Your task to perform on an android device: Where can I buy a nice beach chair? Image 0: 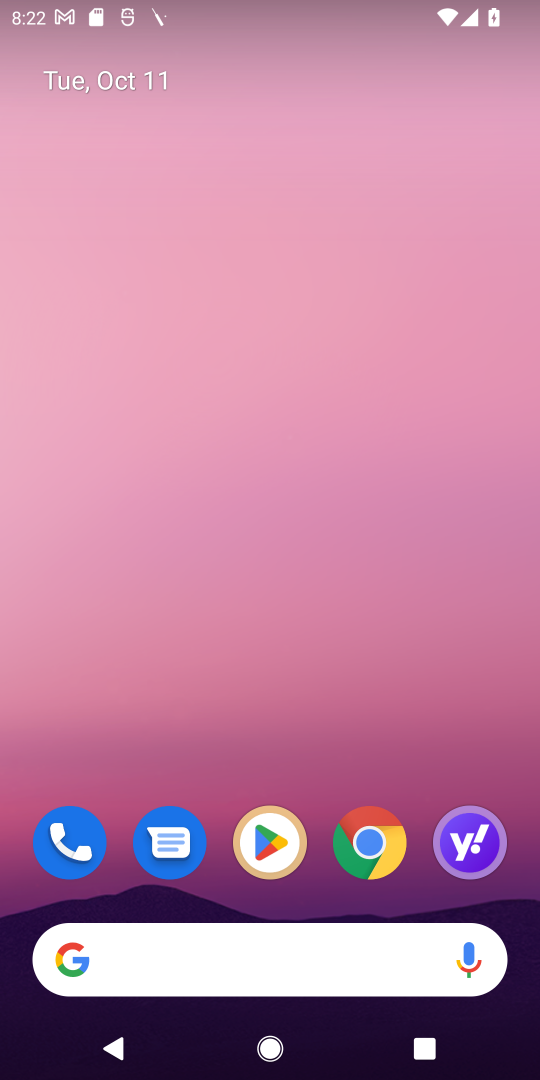
Step 0: click (368, 850)
Your task to perform on an android device: Where can I buy a nice beach chair? Image 1: 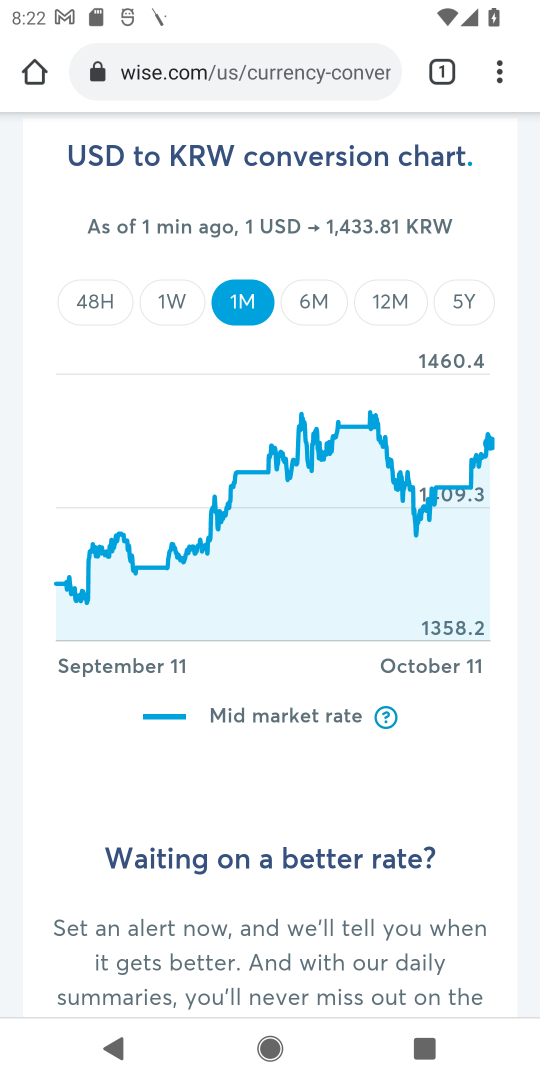
Step 1: click (291, 72)
Your task to perform on an android device: Where can I buy a nice beach chair? Image 2: 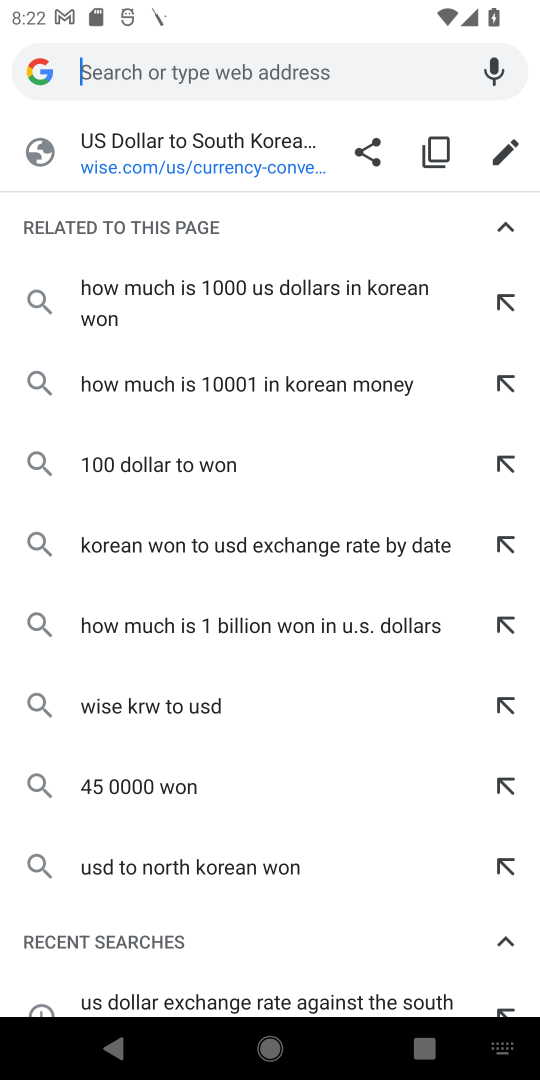
Step 2: type "nice beach chair"
Your task to perform on an android device: Where can I buy a nice beach chair? Image 3: 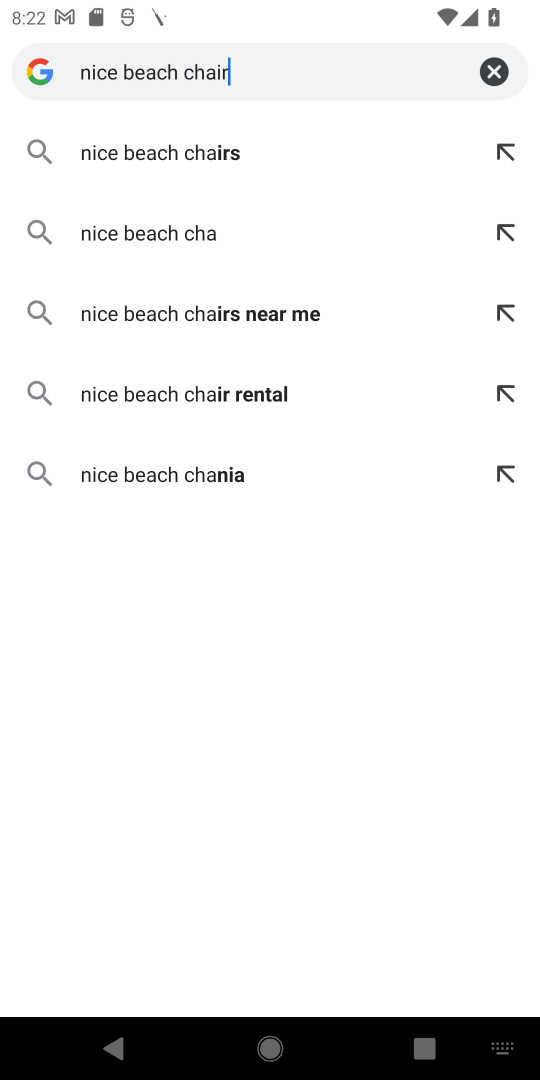
Step 3: type ""
Your task to perform on an android device: Where can I buy a nice beach chair? Image 4: 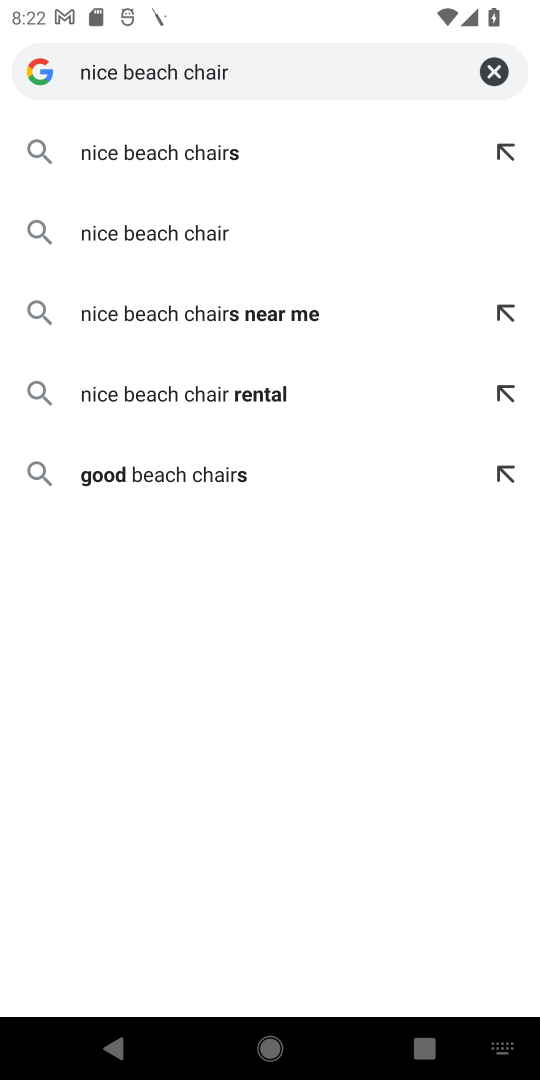
Step 4: click (122, 234)
Your task to perform on an android device: Where can I buy a nice beach chair? Image 5: 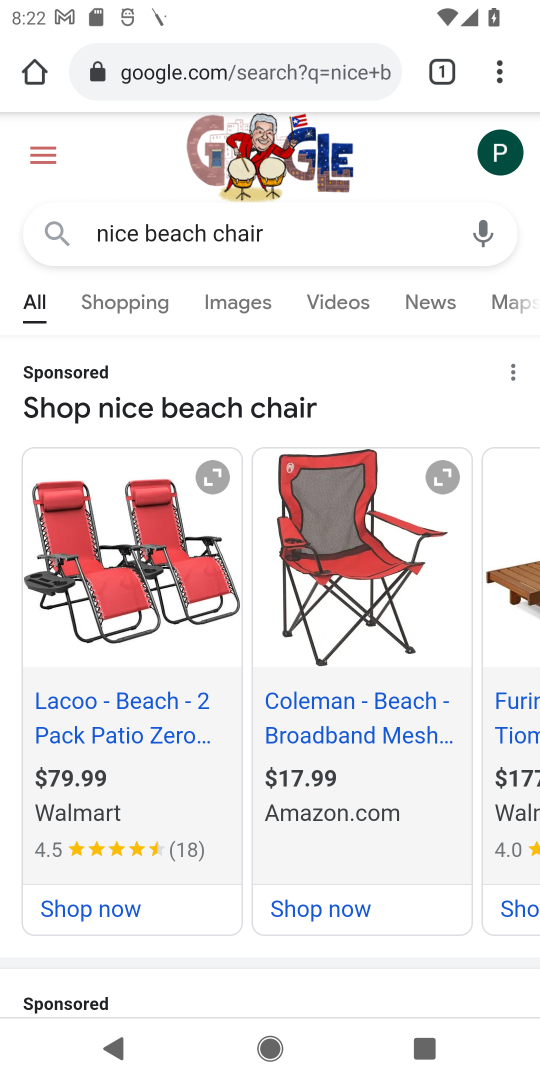
Step 5: drag from (166, 811) to (207, 102)
Your task to perform on an android device: Where can I buy a nice beach chair? Image 6: 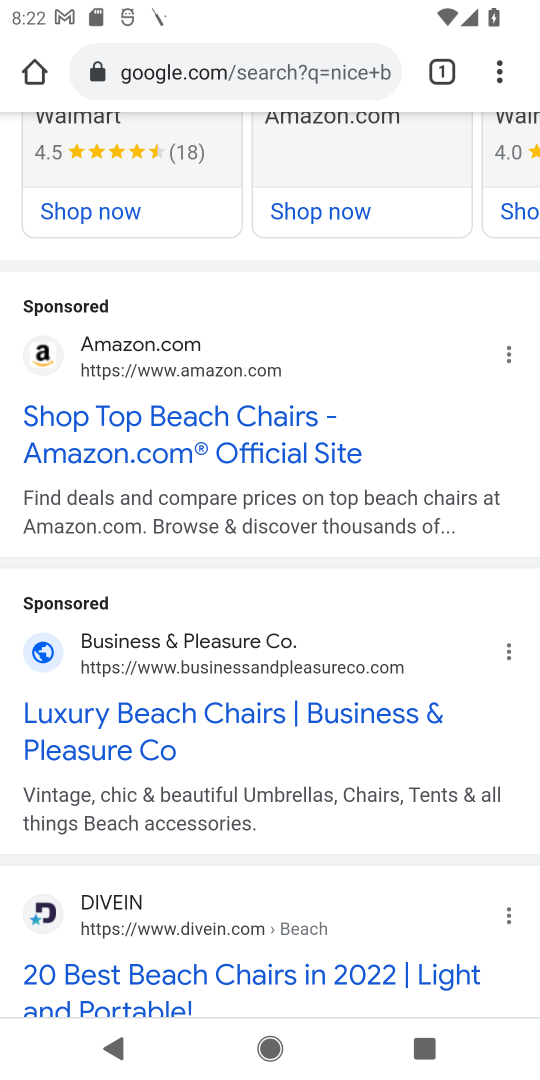
Step 6: drag from (157, 743) to (157, 563)
Your task to perform on an android device: Where can I buy a nice beach chair? Image 7: 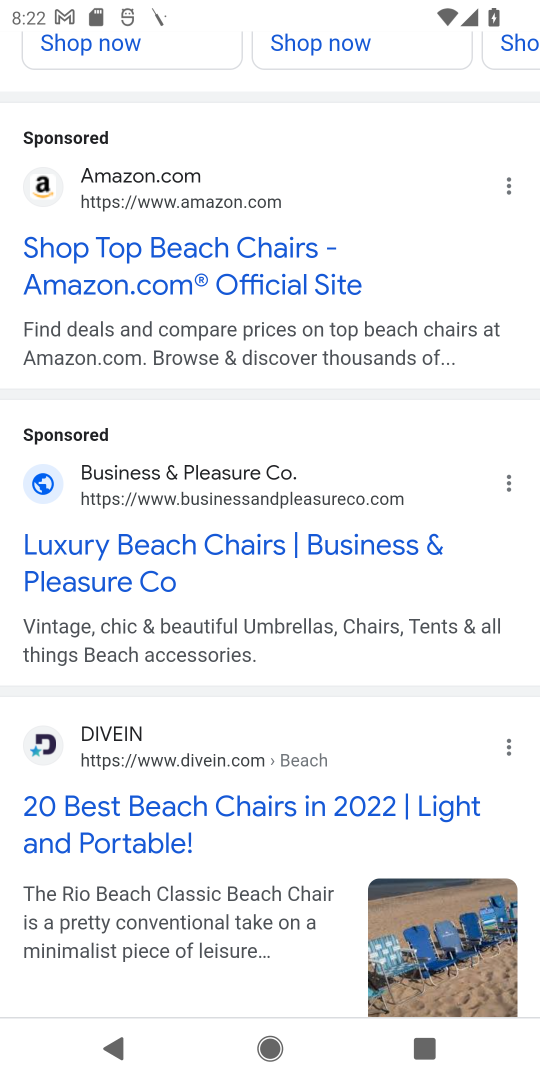
Step 7: click (151, 805)
Your task to perform on an android device: Where can I buy a nice beach chair? Image 8: 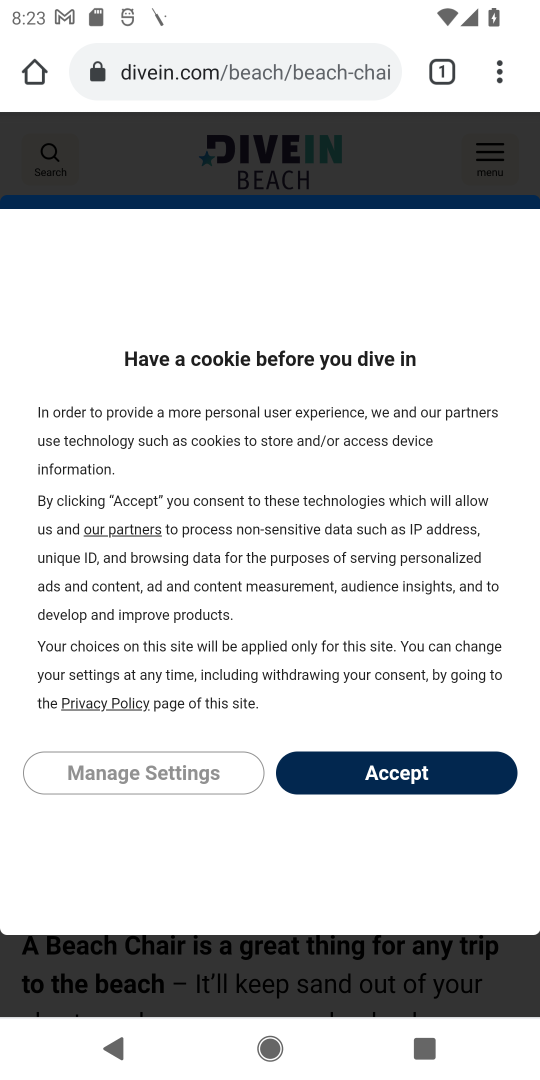
Step 8: click (350, 774)
Your task to perform on an android device: Where can I buy a nice beach chair? Image 9: 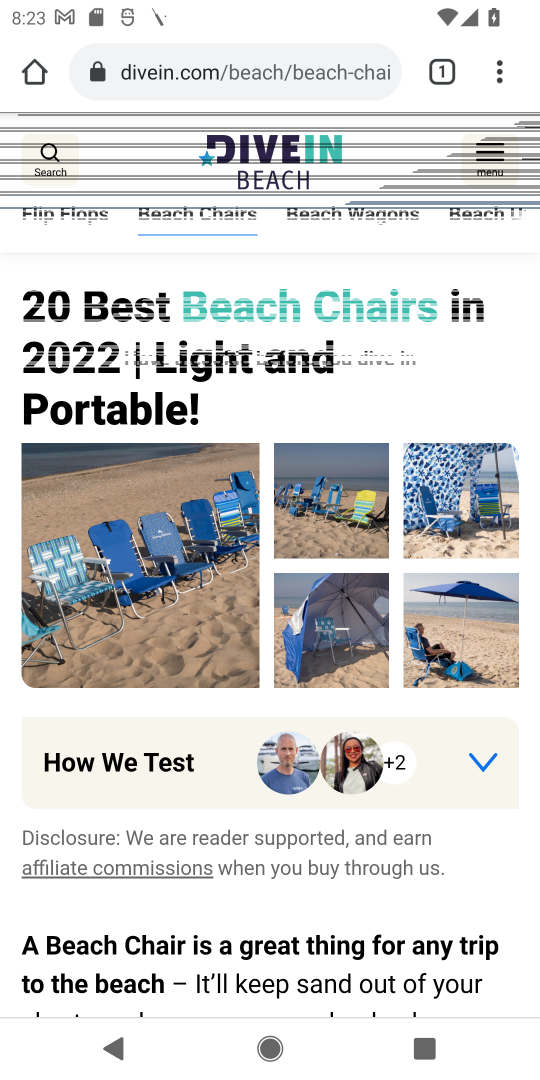
Step 9: drag from (172, 891) to (218, 516)
Your task to perform on an android device: Where can I buy a nice beach chair? Image 10: 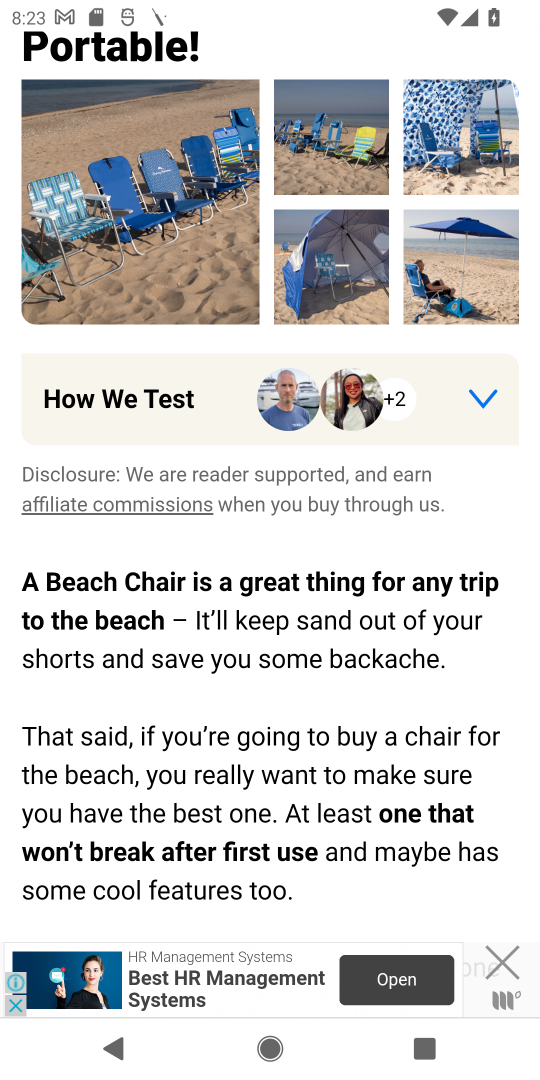
Step 10: drag from (226, 811) to (236, 405)
Your task to perform on an android device: Where can I buy a nice beach chair? Image 11: 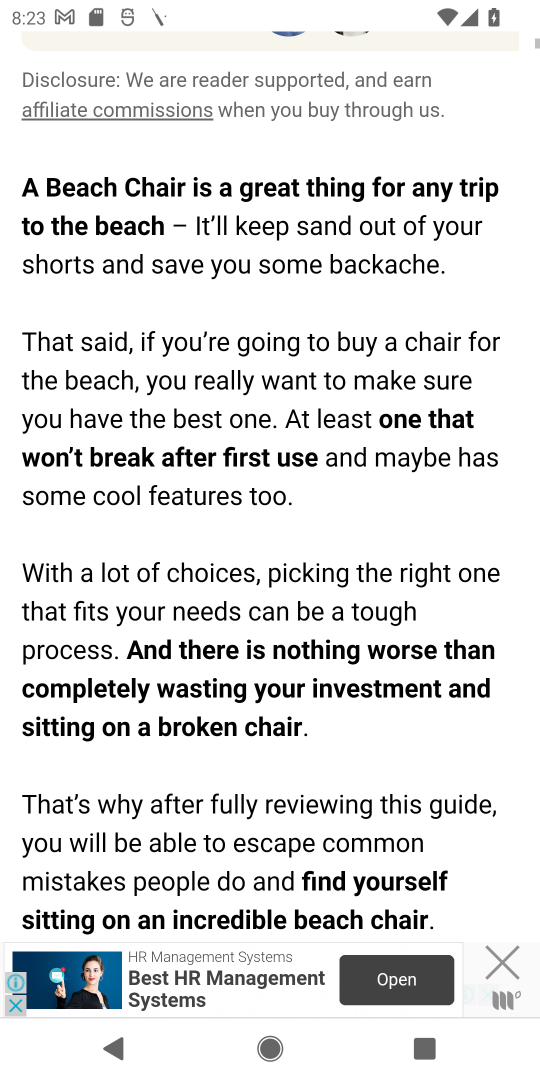
Step 11: drag from (136, 709) to (140, 416)
Your task to perform on an android device: Where can I buy a nice beach chair? Image 12: 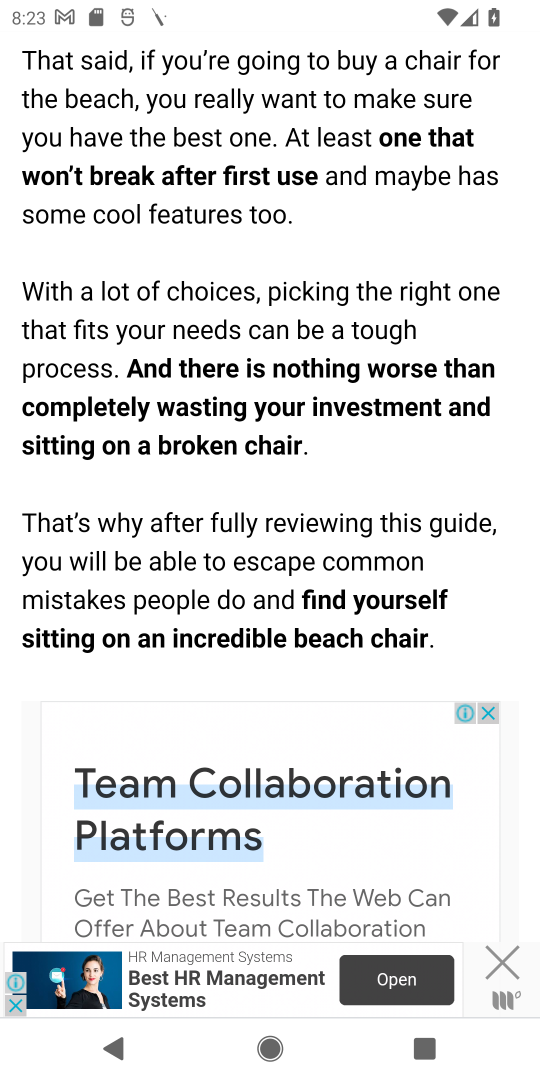
Step 12: click (505, 961)
Your task to perform on an android device: Where can I buy a nice beach chair? Image 13: 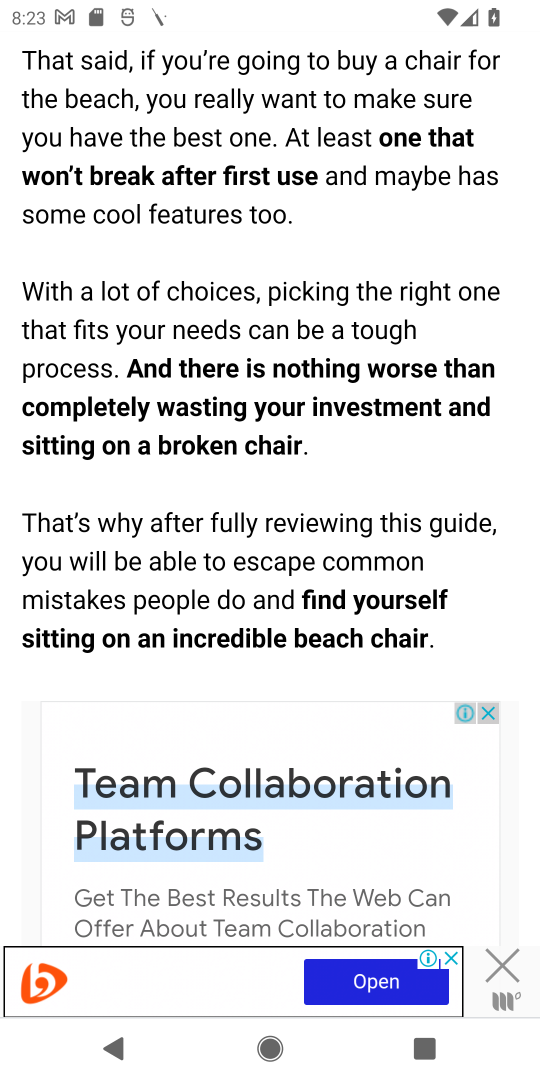
Step 13: click (503, 956)
Your task to perform on an android device: Where can I buy a nice beach chair? Image 14: 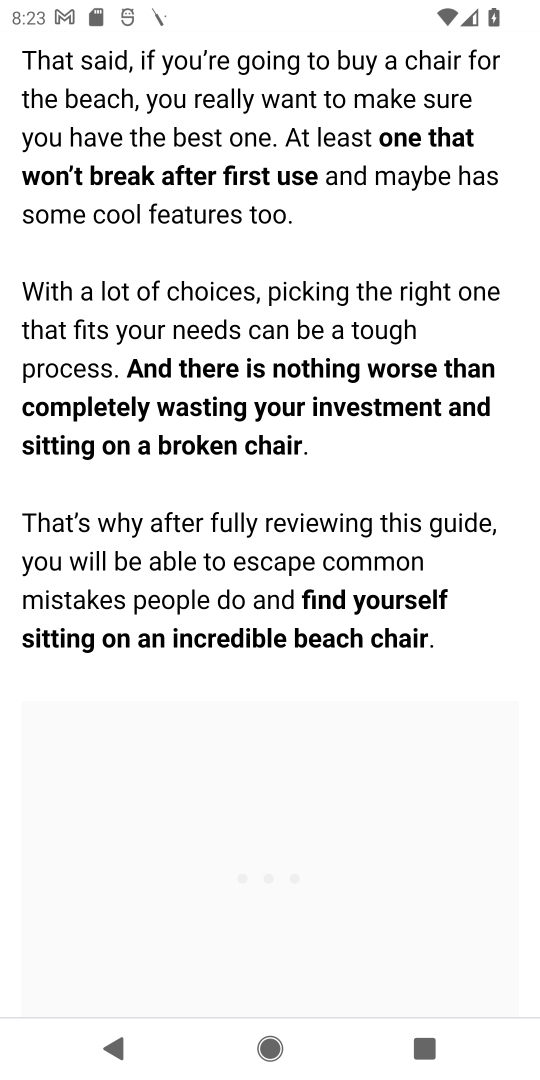
Step 14: drag from (283, 524) to (350, 200)
Your task to perform on an android device: Where can I buy a nice beach chair? Image 15: 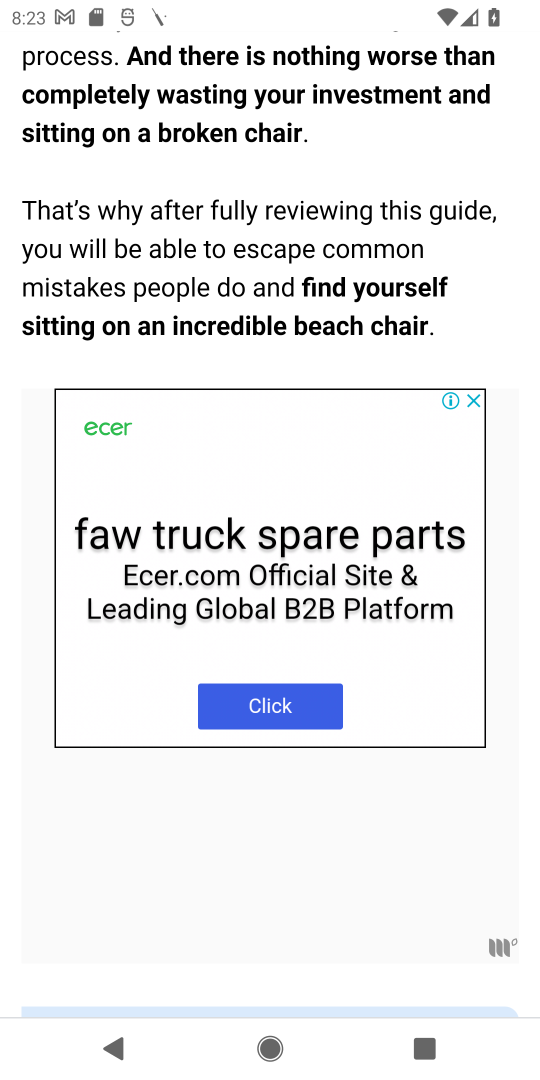
Step 15: drag from (279, 232) to (306, 937)
Your task to perform on an android device: Where can I buy a nice beach chair? Image 16: 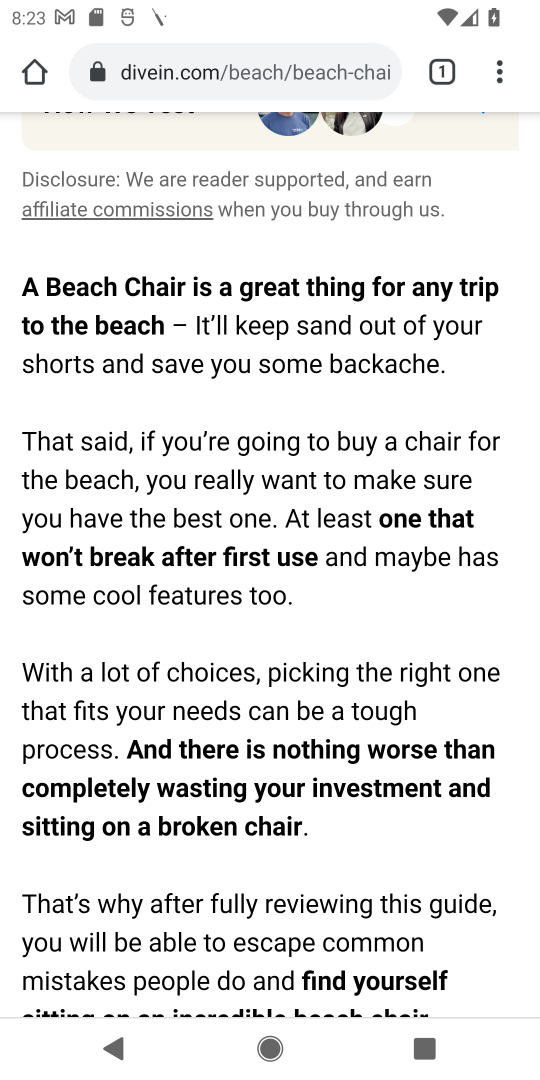
Step 16: drag from (253, 357) to (285, 926)
Your task to perform on an android device: Where can I buy a nice beach chair? Image 17: 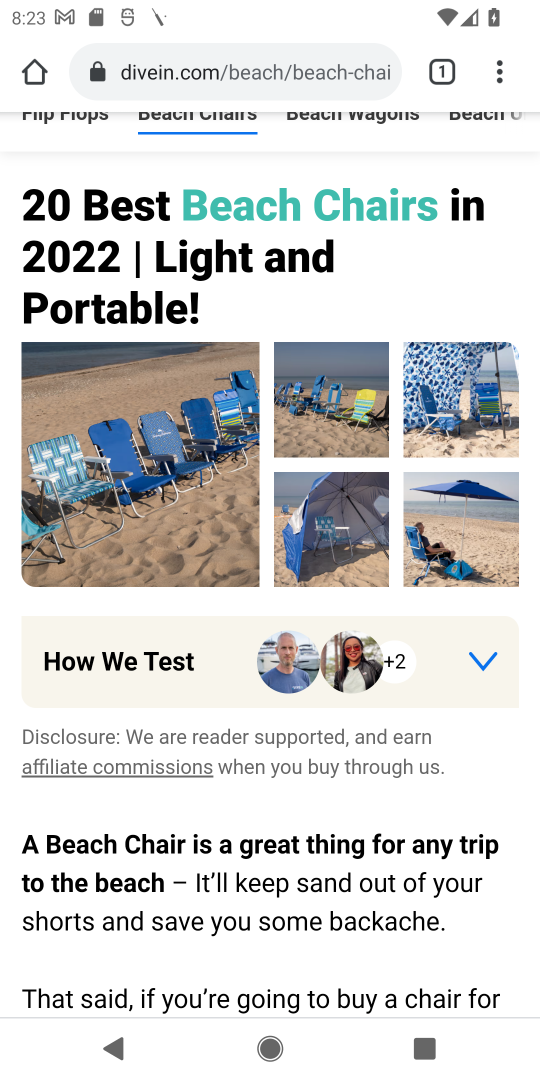
Step 17: click (180, 404)
Your task to perform on an android device: Where can I buy a nice beach chair? Image 18: 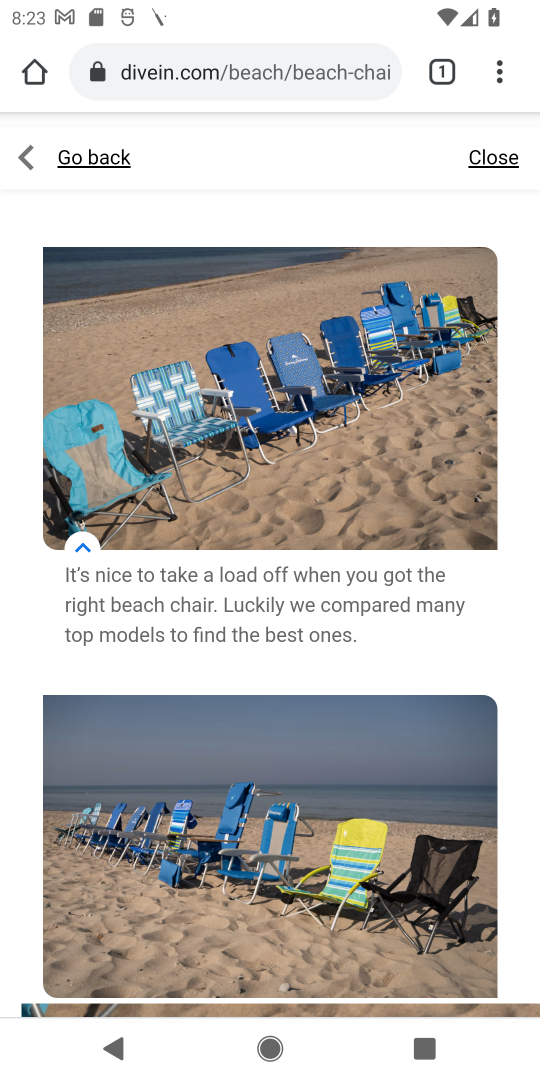
Step 18: drag from (250, 891) to (335, 512)
Your task to perform on an android device: Where can I buy a nice beach chair? Image 19: 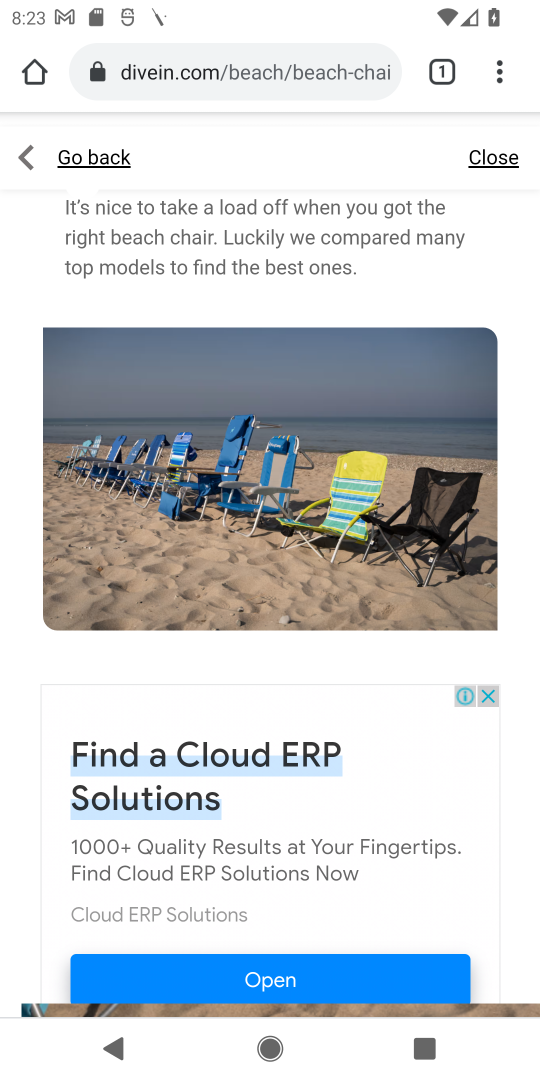
Step 19: drag from (222, 840) to (334, 482)
Your task to perform on an android device: Where can I buy a nice beach chair? Image 20: 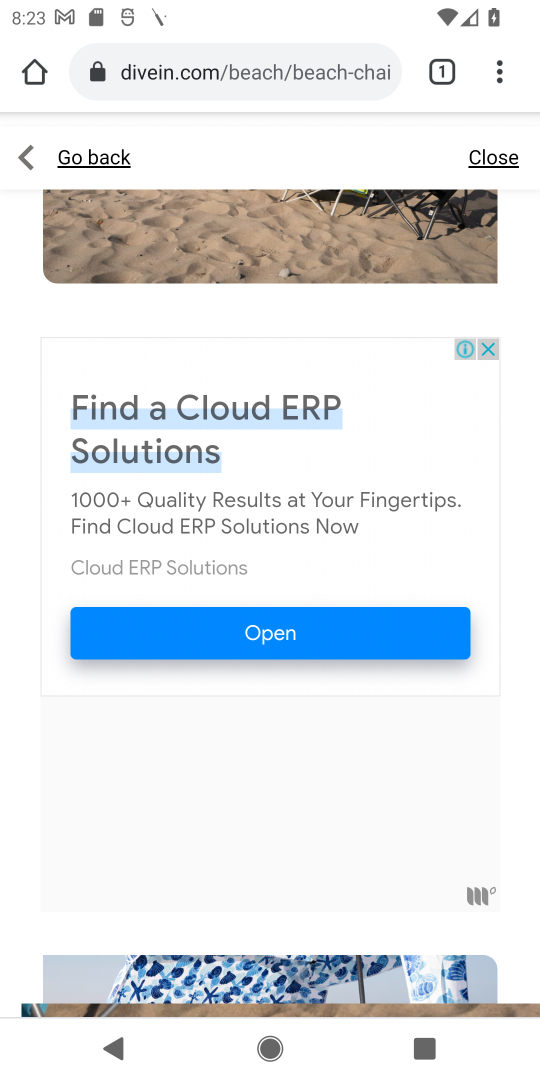
Step 20: click (492, 345)
Your task to perform on an android device: Where can I buy a nice beach chair? Image 21: 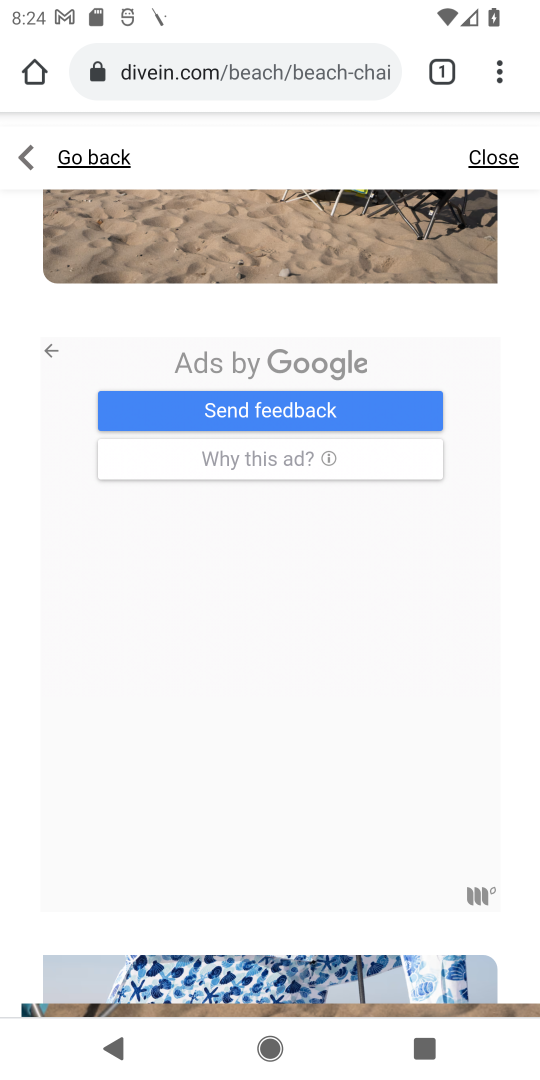
Step 21: task complete